Your task to perform on an android device: Show the shopping cart on costco. Add "acer nitro" to the cart on costco Image 0: 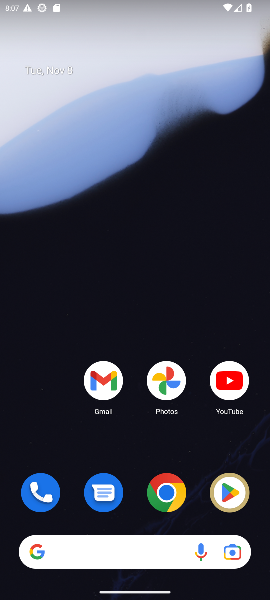
Step 0: click (155, 502)
Your task to perform on an android device: Show the shopping cart on costco. Add "acer nitro" to the cart on costco Image 1: 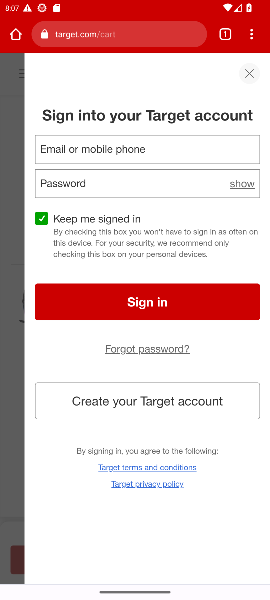
Step 1: click (89, 41)
Your task to perform on an android device: Show the shopping cart on costco. Add "acer nitro" to the cart on costco Image 2: 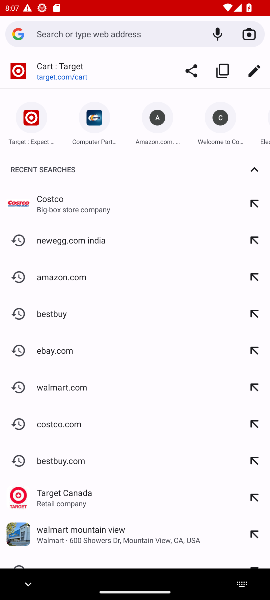
Step 2: type "costco.com"
Your task to perform on an android device: Show the shopping cart on costco. Add "acer nitro" to the cart on costco Image 3: 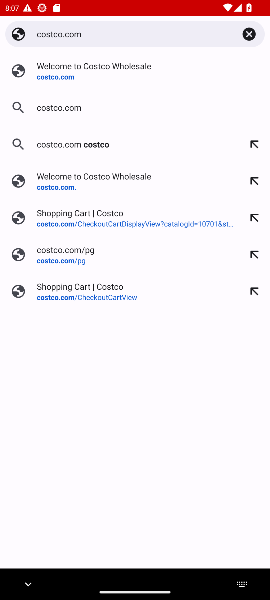
Step 3: press enter
Your task to perform on an android device: Show the shopping cart on costco. Add "acer nitro" to the cart on costco Image 4: 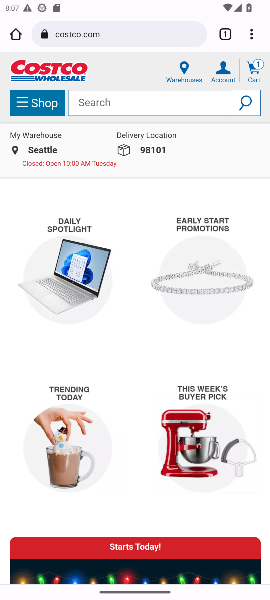
Step 4: click (112, 100)
Your task to perform on an android device: Show the shopping cart on costco. Add "acer nitro" to the cart on costco Image 5: 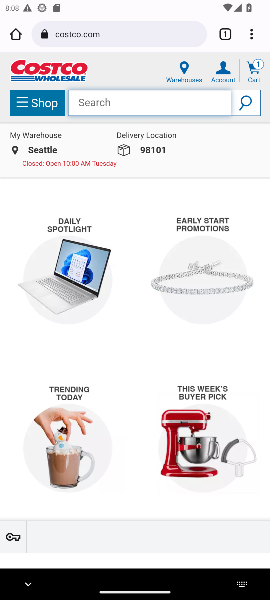
Step 5: type "acer nitro"
Your task to perform on an android device: Show the shopping cart on costco. Add "acer nitro" to the cart on costco Image 6: 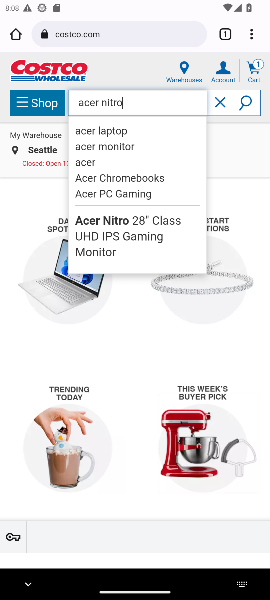
Step 6: press enter
Your task to perform on an android device: Show the shopping cart on costco. Add "acer nitro" to the cart on costco Image 7: 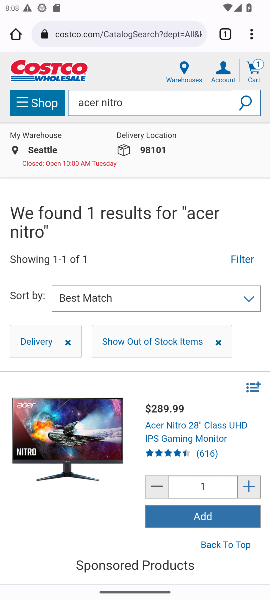
Step 7: click (199, 518)
Your task to perform on an android device: Show the shopping cart on costco. Add "acer nitro" to the cart on costco Image 8: 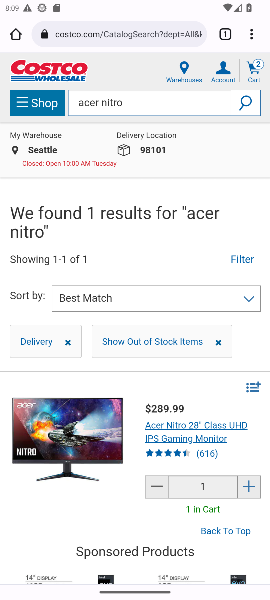
Step 8: click (247, 73)
Your task to perform on an android device: Show the shopping cart on costco. Add "acer nitro" to the cart on costco Image 9: 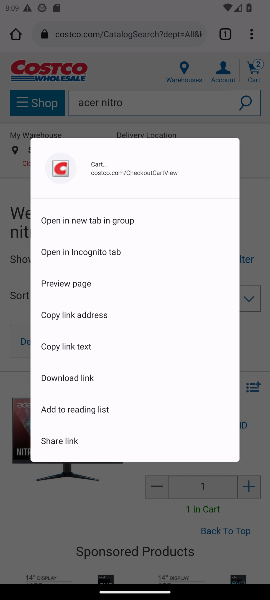
Step 9: click (248, 73)
Your task to perform on an android device: Show the shopping cart on costco. Add "acer nitro" to the cart on costco Image 10: 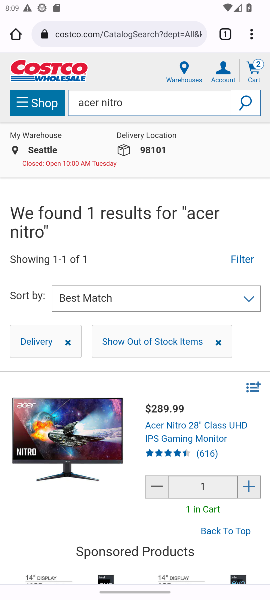
Step 10: click (248, 73)
Your task to perform on an android device: Show the shopping cart on costco. Add "acer nitro" to the cart on costco Image 11: 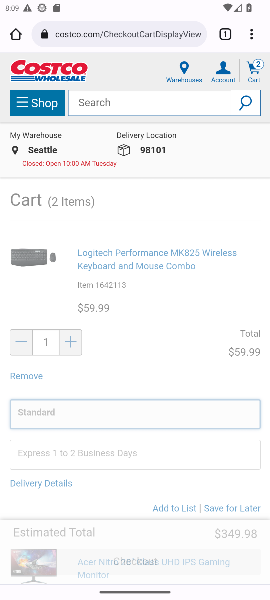
Step 11: task complete